Your task to perform on an android device: turn on data saver in the chrome app Image 0: 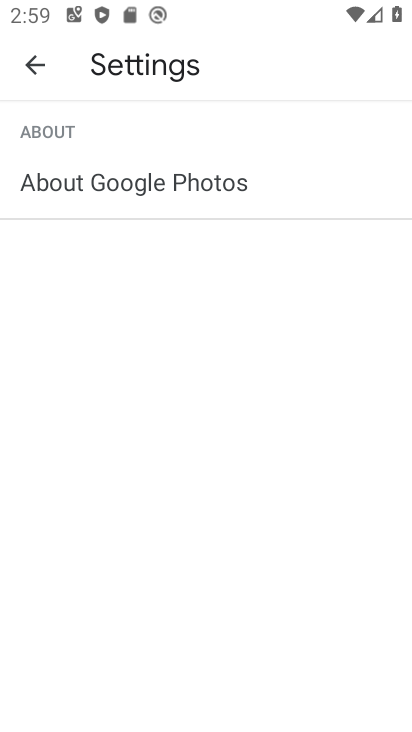
Step 0: click (155, 512)
Your task to perform on an android device: turn on data saver in the chrome app Image 1: 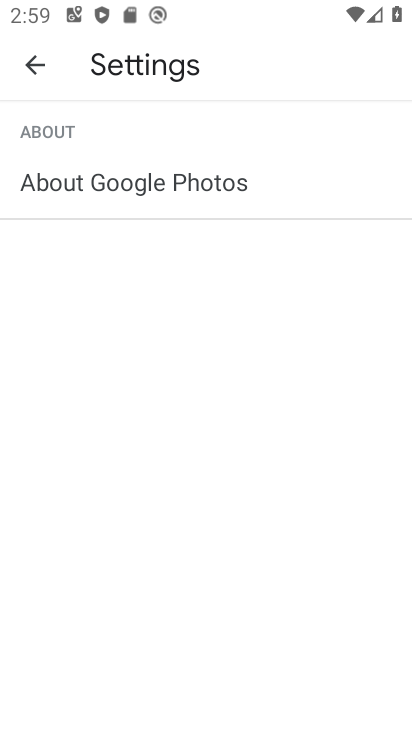
Step 1: press home button
Your task to perform on an android device: turn on data saver in the chrome app Image 2: 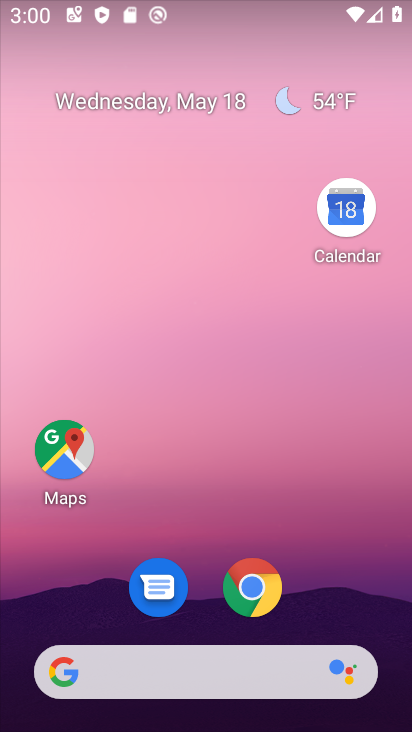
Step 2: drag from (213, 614) to (246, 192)
Your task to perform on an android device: turn on data saver in the chrome app Image 3: 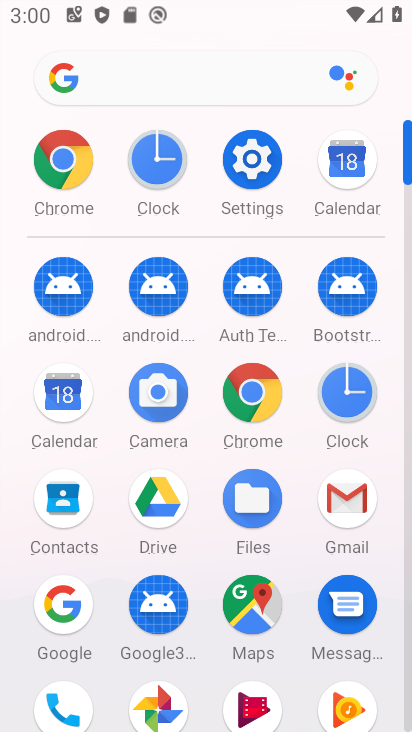
Step 3: click (242, 381)
Your task to perform on an android device: turn on data saver in the chrome app Image 4: 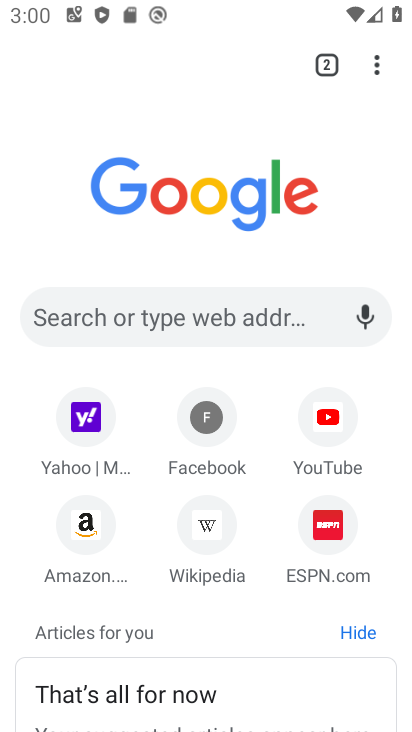
Step 4: drag from (251, 580) to (267, 198)
Your task to perform on an android device: turn on data saver in the chrome app Image 5: 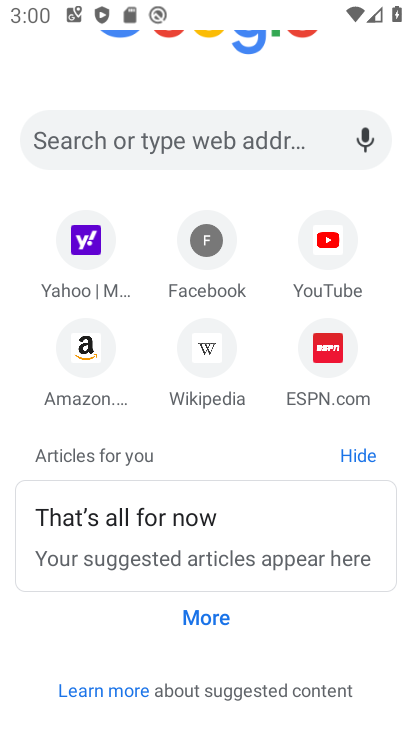
Step 5: drag from (217, 89) to (313, 579)
Your task to perform on an android device: turn on data saver in the chrome app Image 6: 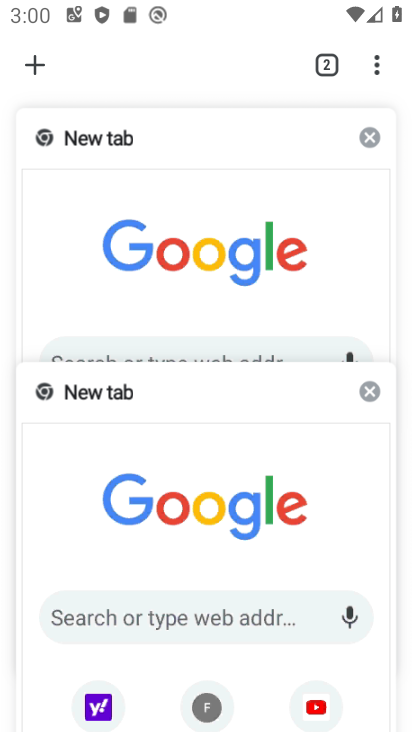
Step 6: drag from (304, 129) to (405, 531)
Your task to perform on an android device: turn on data saver in the chrome app Image 7: 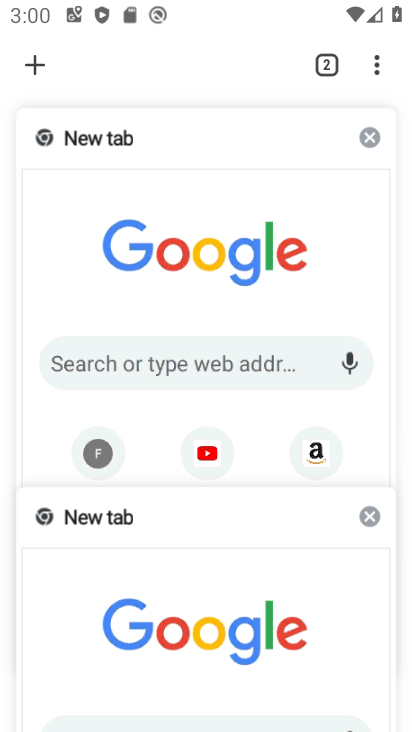
Step 7: click (241, 204)
Your task to perform on an android device: turn on data saver in the chrome app Image 8: 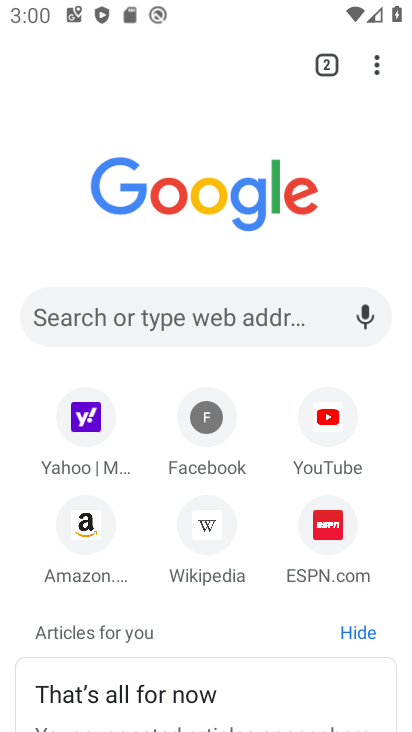
Step 8: click (375, 78)
Your task to perform on an android device: turn on data saver in the chrome app Image 9: 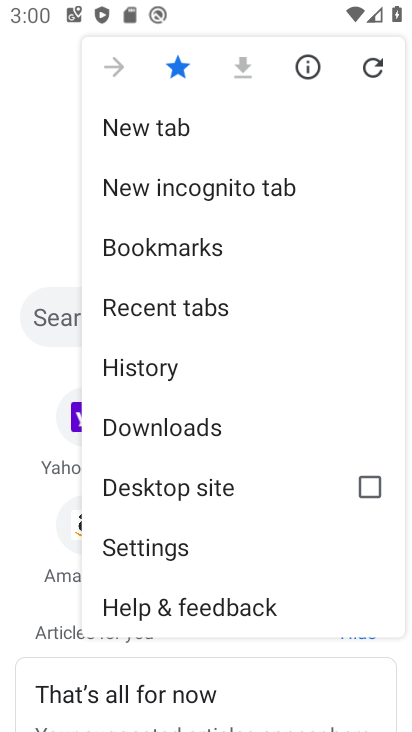
Step 9: drag from (183, 558) to (252, 156)
Your task to perform on an android device: turn on data saver in the chrome app Image 10: 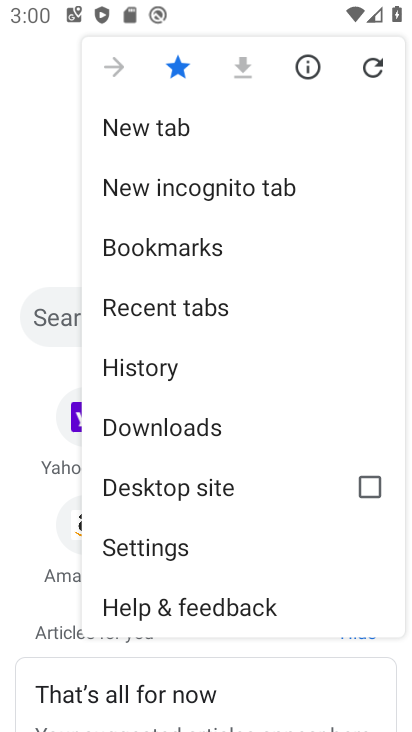
Step 10: click (169, 559)
Your task to perform on an android device: turn on data saver in the chrome app Image 11: 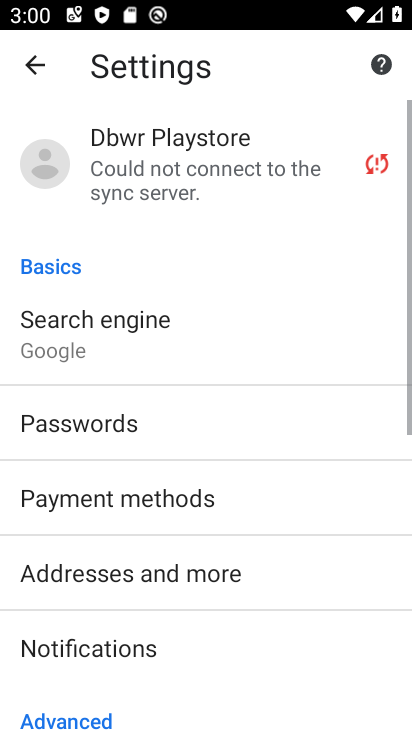
Step 11: drag from (141, 665) to (219, 218)
Your task to perform on an android device: turn on data saver in the chrome app Image 12: 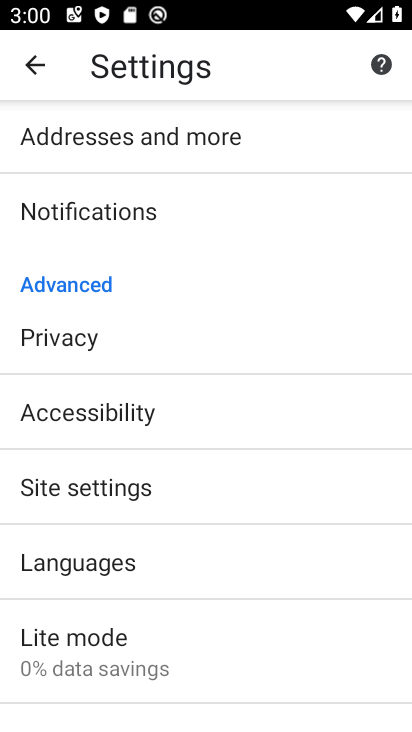
Step 12: click (90, 646)
Your task to perform on an android device: turn on data saver in the chrome app Image 13: 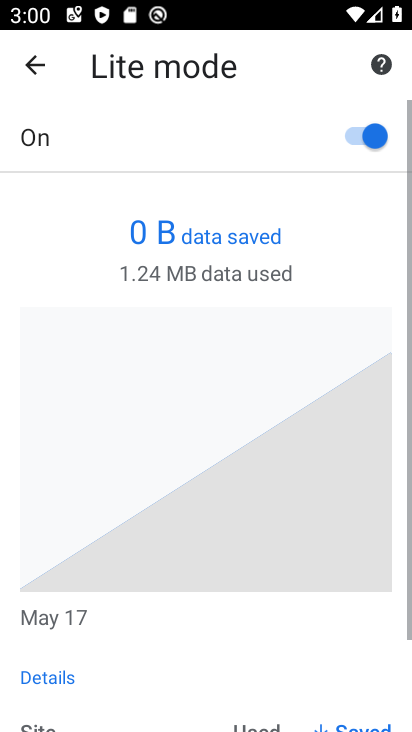
Step 13: task complete